Your task to perform on an android device: What is the news today? Image 0: 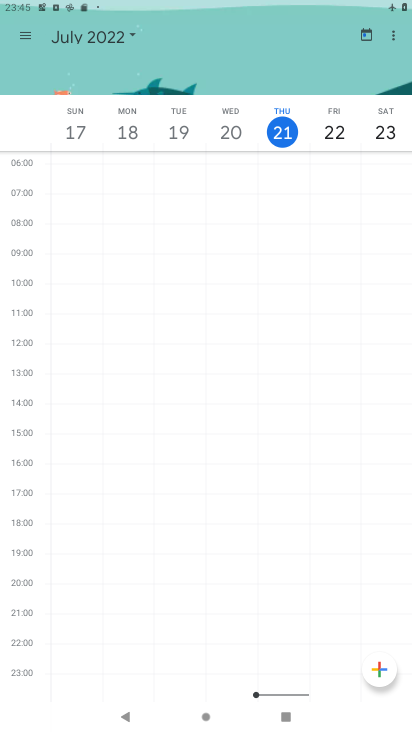
Step 0: press home button
Your task to perform on an android device: What is the news today? Image 1: 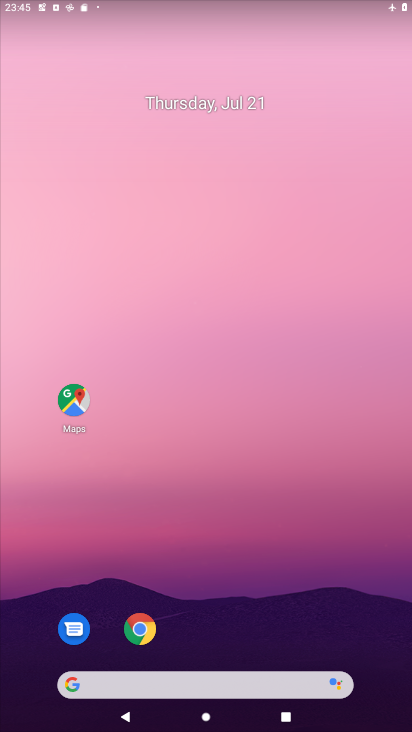
Step 1: drag from (333, 536) to (294, 23)
Your task to perform on an android device: What is the news today? Image 2: 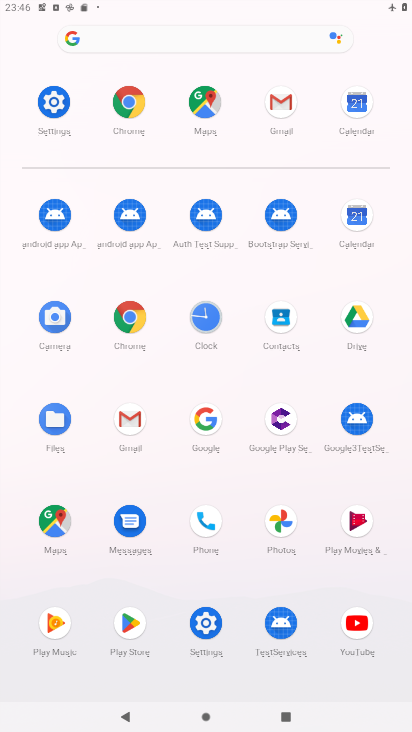
Step 2: click (211, 427)
Your task to perform on an android device: What is the news today? Image 3: 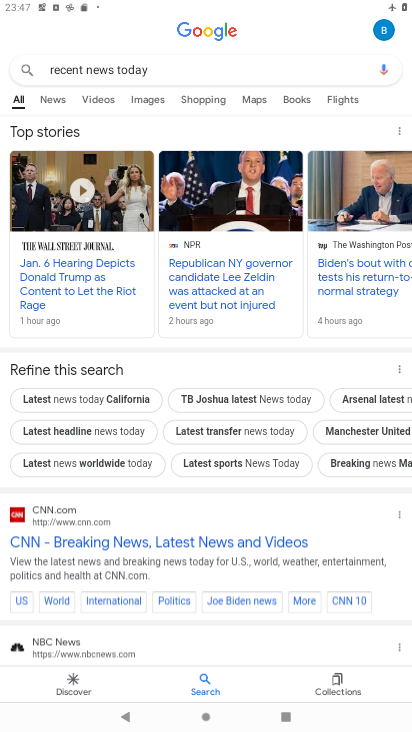
Step 3: task complete